Your task to perform on an android device: Open the stopwatch Image 0: 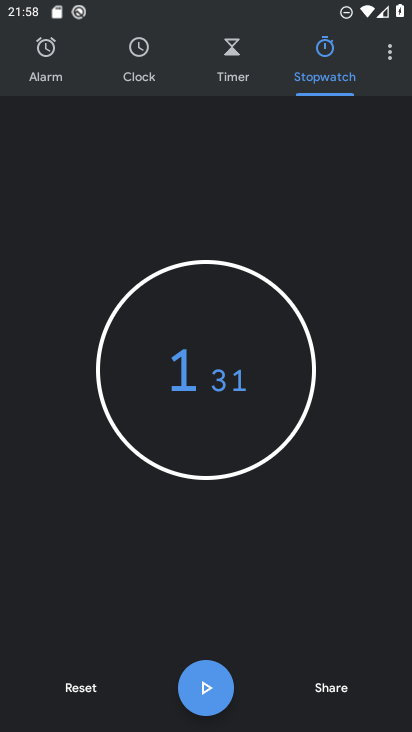
Step 0: click (221, 691)
Your task to perform on an android device: Open the stopwatch Image 1: 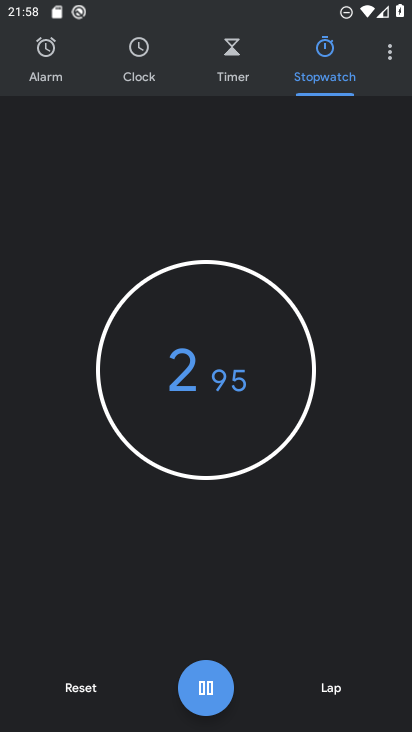
Step 1: task complete